Your task to perform on an android device: open app "Roku - Official Remote Control" (install if not already installed) Image 0: 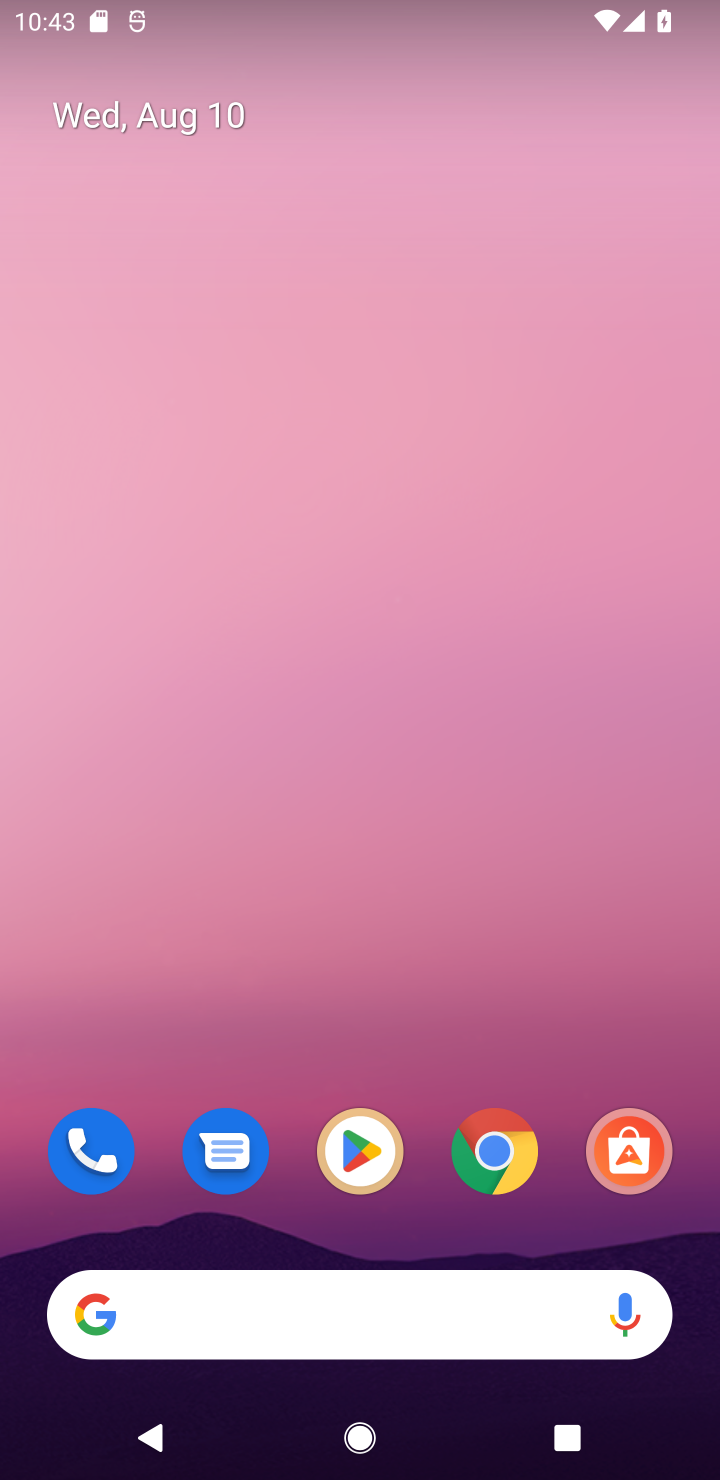
Step 0: drag from (410, 1222) to (416, 471)
Your task to perform on an android device: open app "Roku - Official Remote Control" (install if not already installed) Image 1: 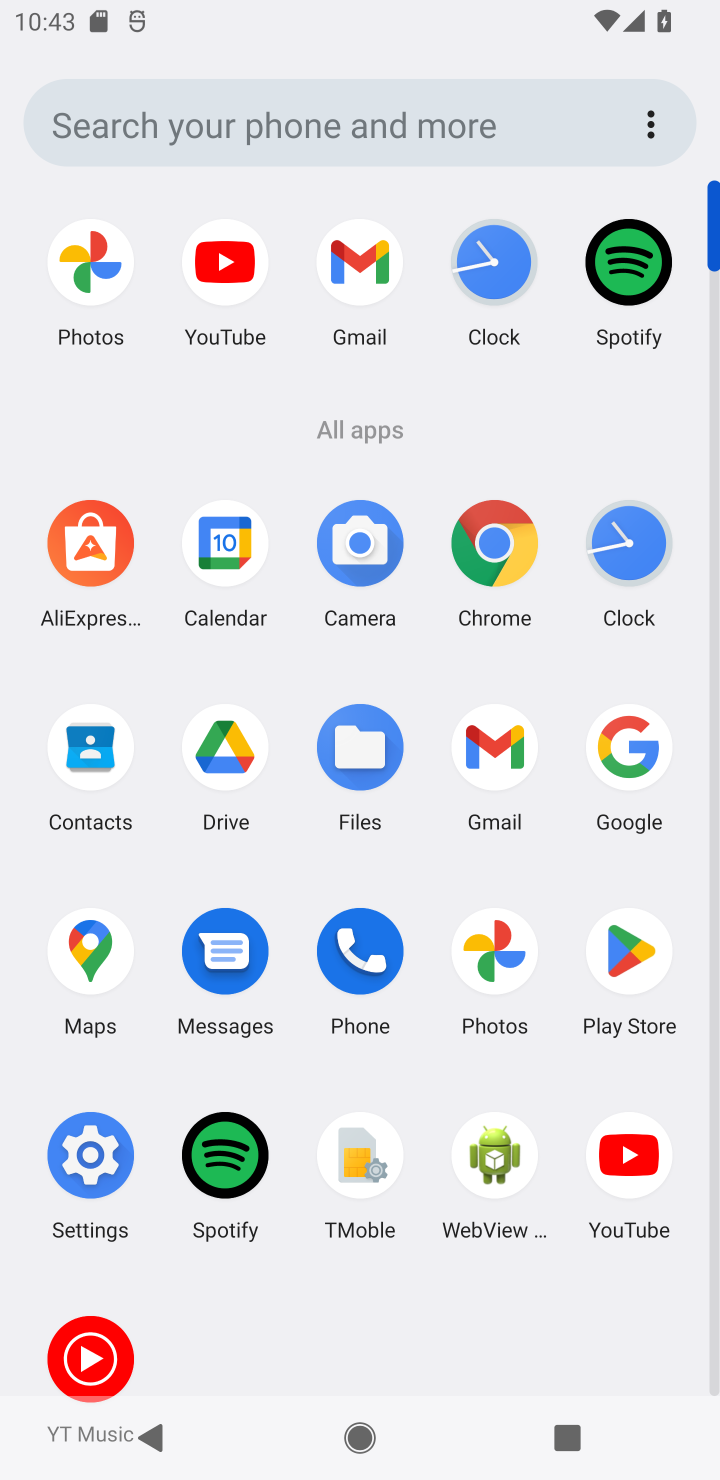
Step 1: click (628, 939)
Your task to perform on an android device: open app "Roku - Official Remote Control" (install if not already installed) Image 2: 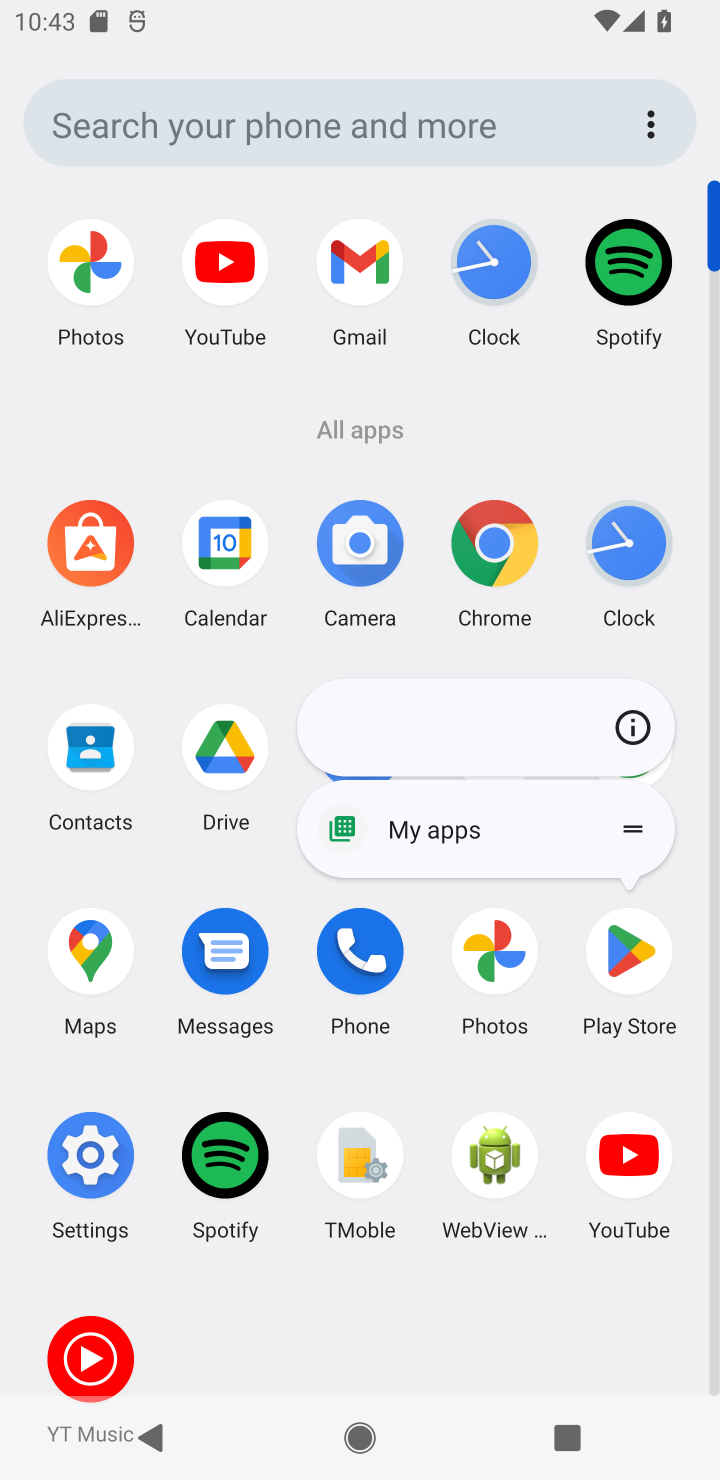
Step 2: click (622, 939)
Your task to perform on an android device: open app "Roku - Official Remote Control" (install if not already installed) Image 3: 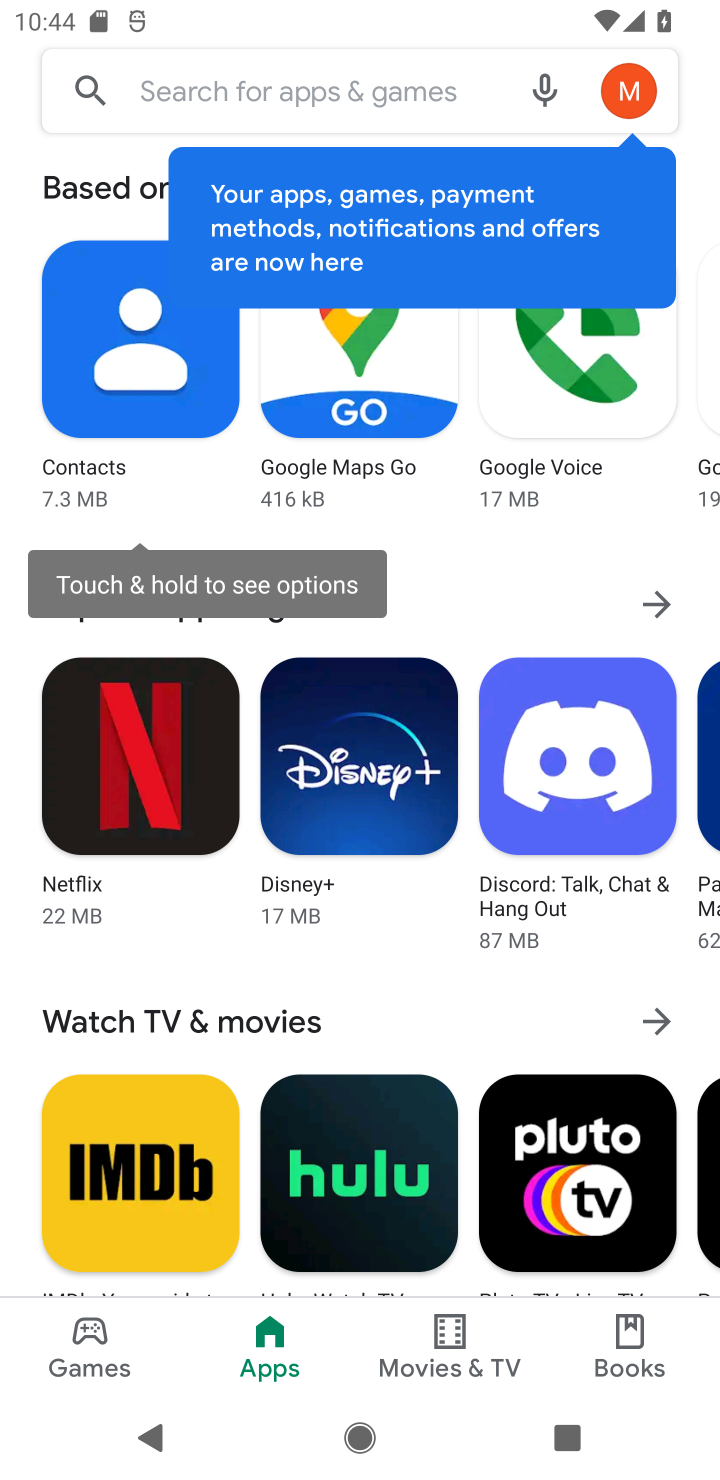
Step 3: click (166, 87)
Your task to perform on an android device: open app "Roku - Official Remote Control" (install if not already installed) Image 4: 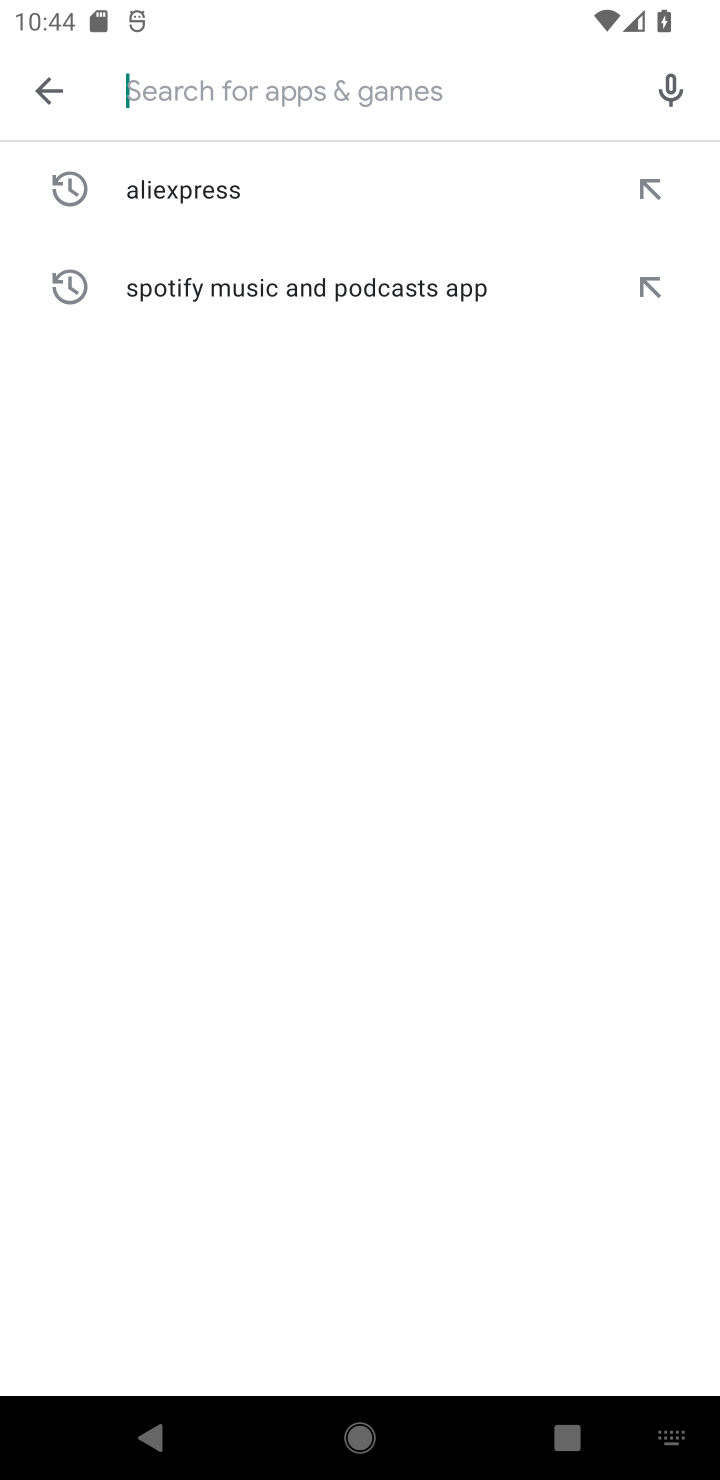
Step 4: type "Roku - Official Remote Control"
Your task to perform on an android device: open app "Roku - Official Remote Control" (install if not already installed) Image 5: 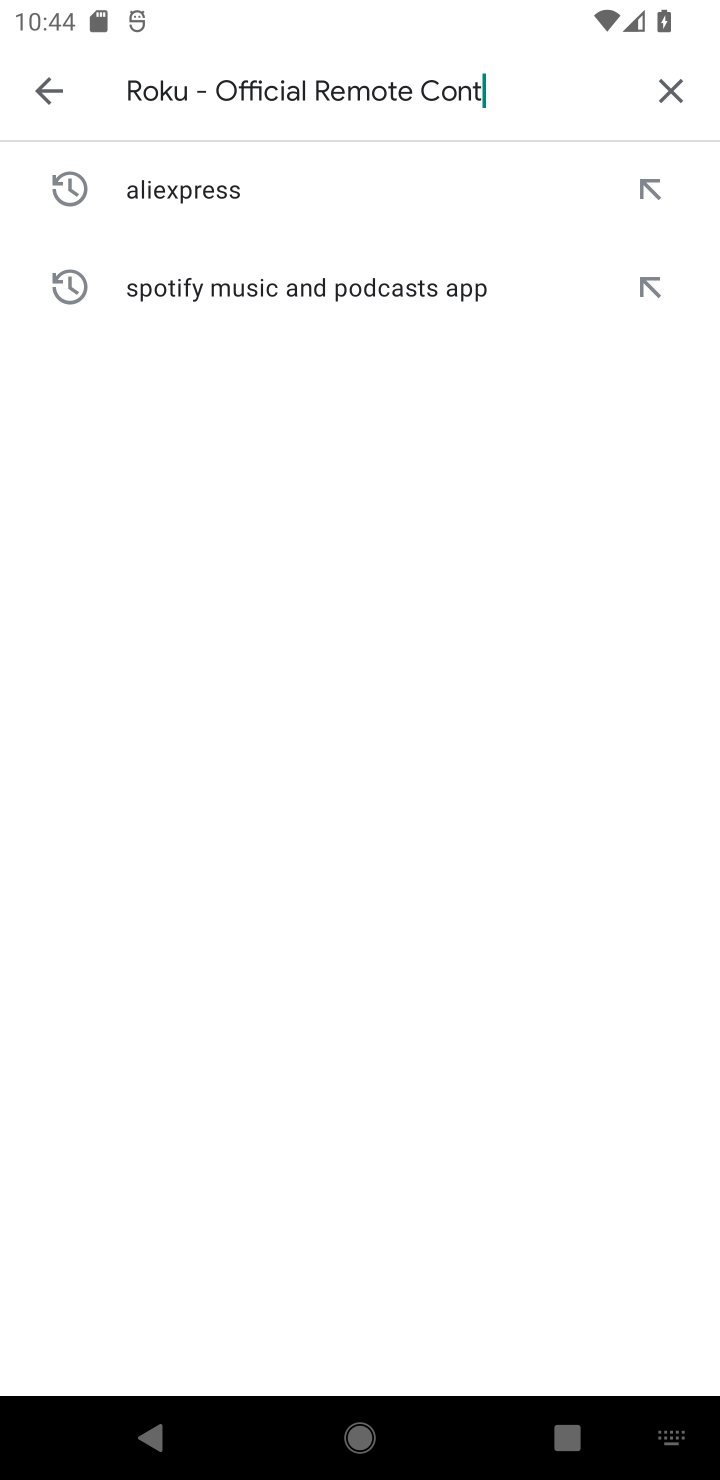
Step 5: type ""
Your task to perform on an android device: open app "Roku - Official Remote Control" (install if not already installed) Image 6: 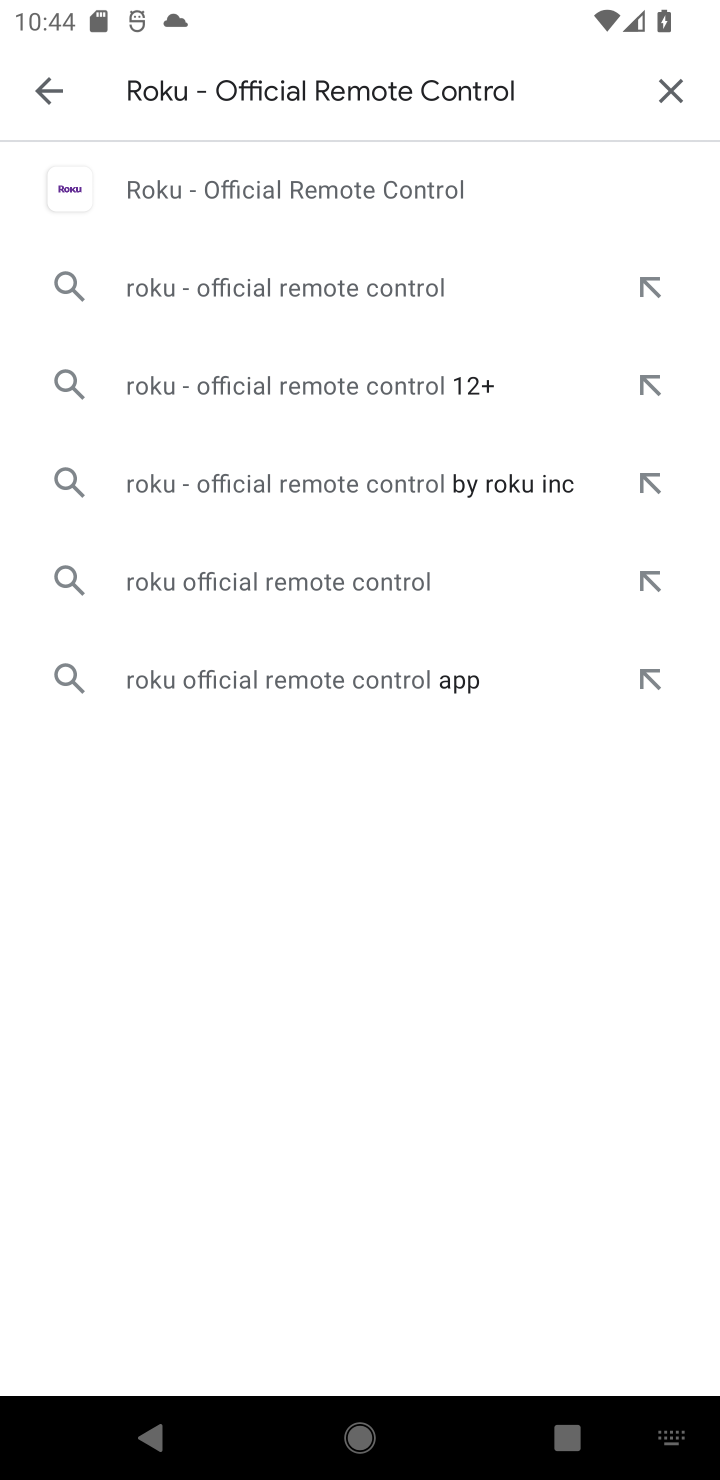
Step 6: click (330, 190)
Your task to perform on an android device: open app "Roku - Official Remote Control" (install if not already installed) Image 7: 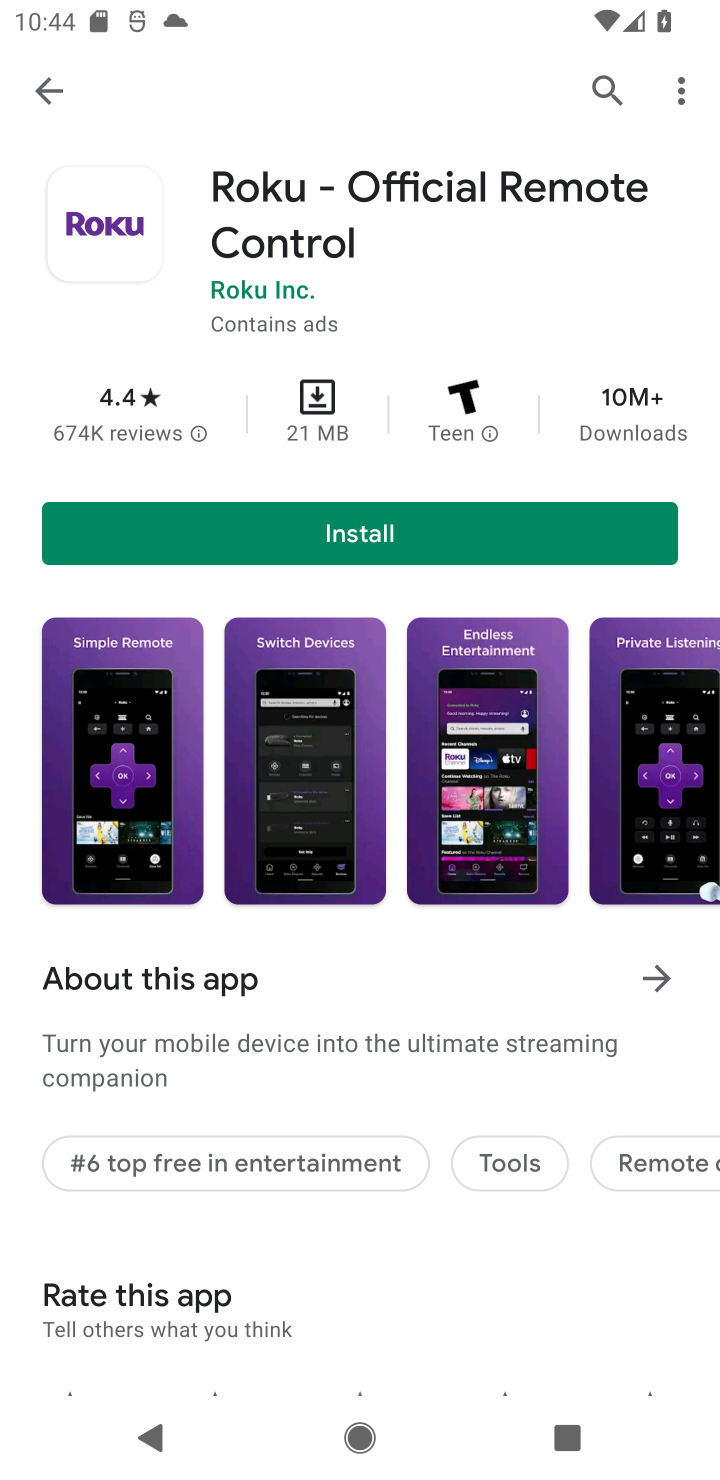
Step 7: click (353, 540)
Your task to perform on an android device: open app "Roku - Official Remote Control" (install if not already installed) Image 8: 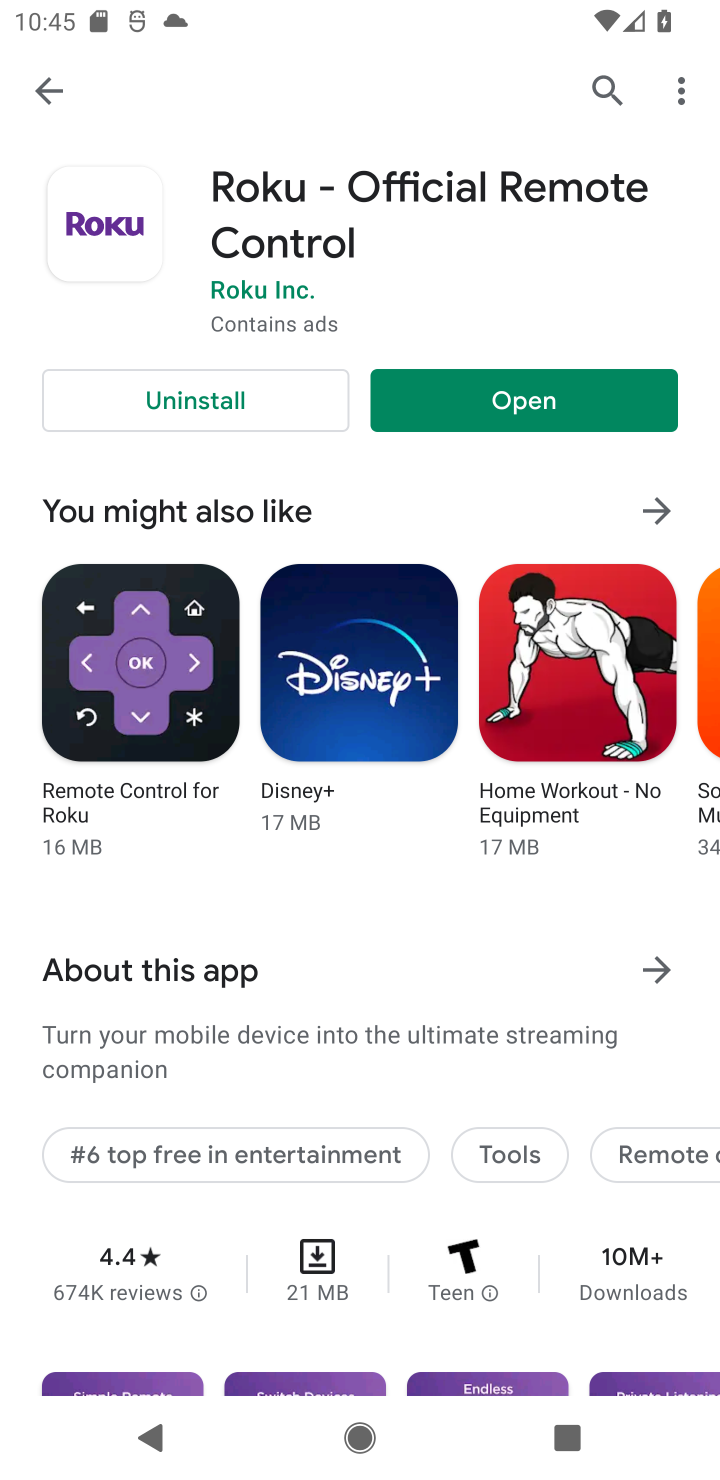
Step 8: click (475, 403)
Your task to perform on an android device: open app "Roku - Official Remote Control" (install if not already installed) Image 9: 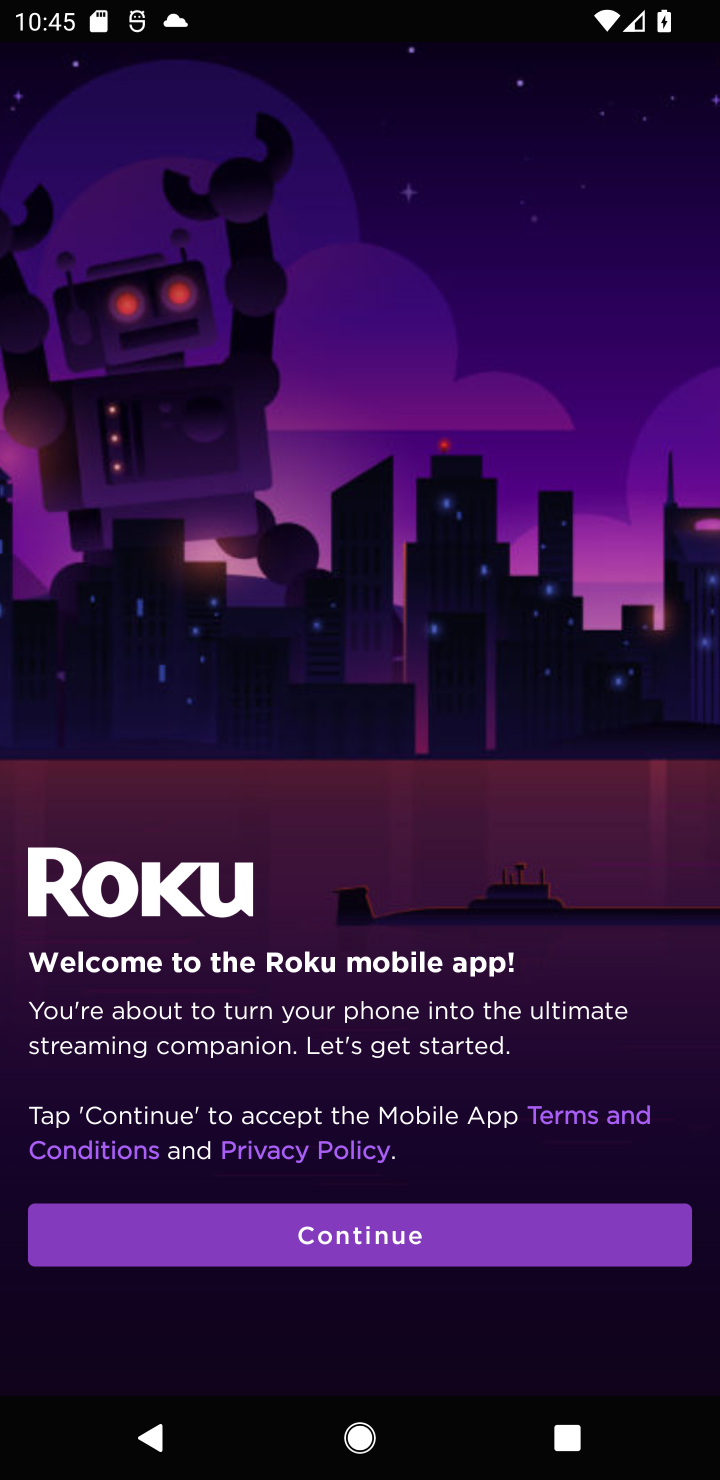
Step 9: click (357, 1238)
Your task to perform on an android device: open app "Roku - Official Remote Control" (install if not already installed) Image 10: 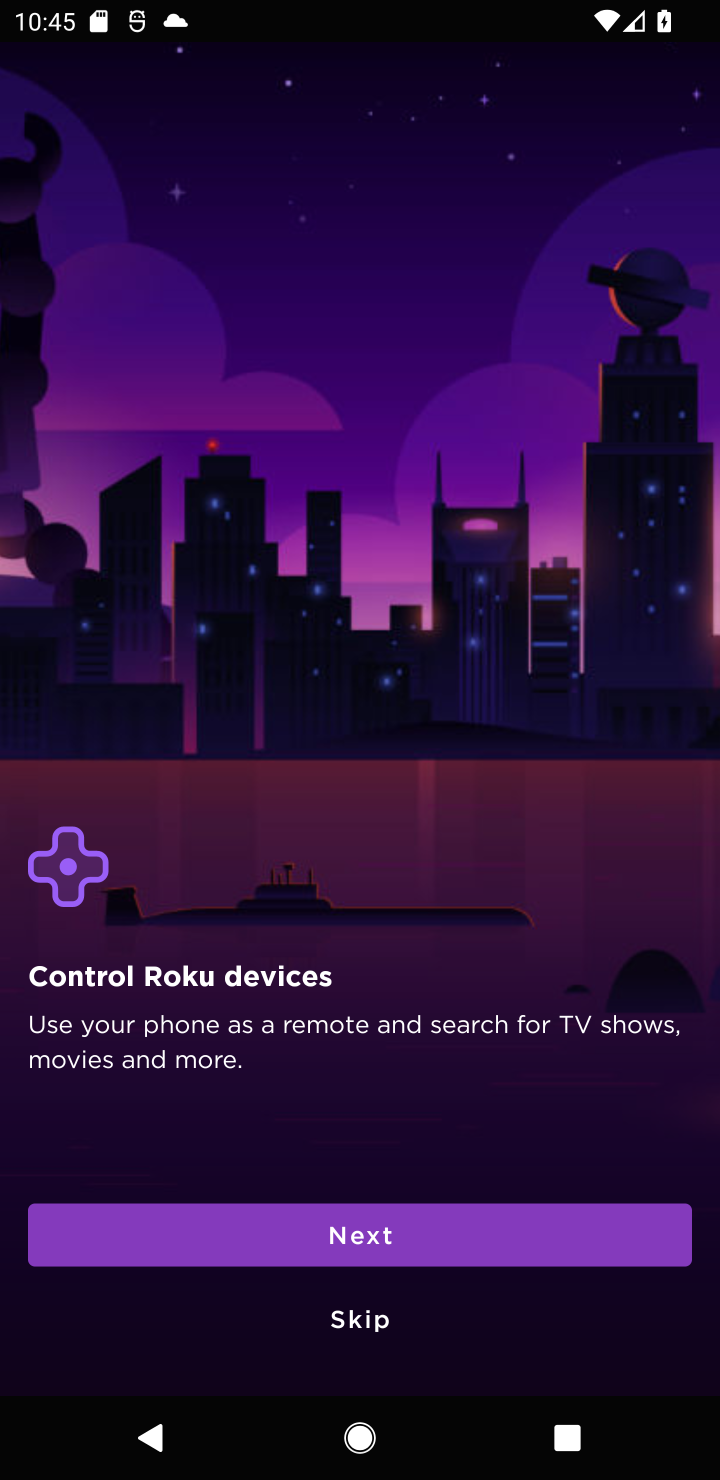
Step 10: click (373, 1313)
Your task to perform on an android device: open app "Roku - Official Remote Control" (install if not already installed) Image 11: 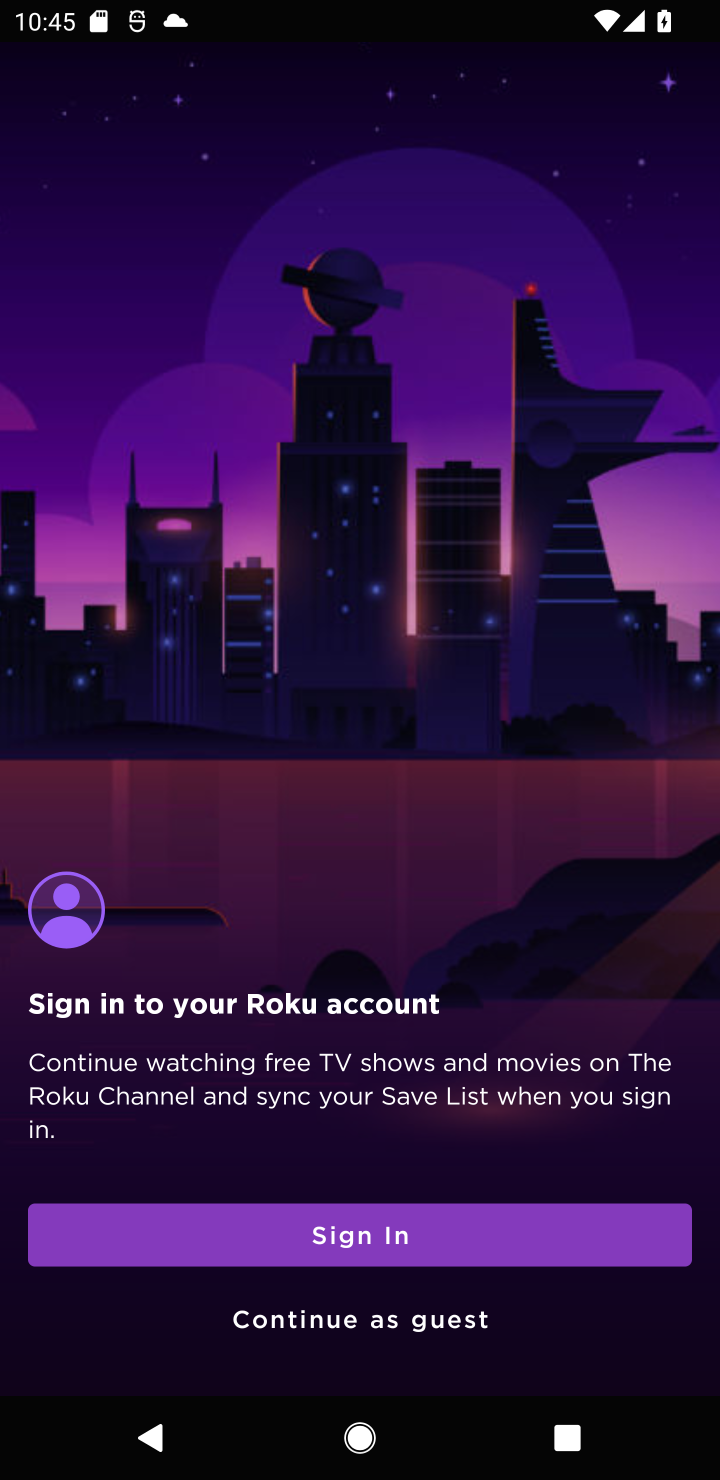
Step 11: click (367, 1325)
Your task to perform on an android device: open app "Roku - Official Remote Control" (install if not already installed) Image 12: 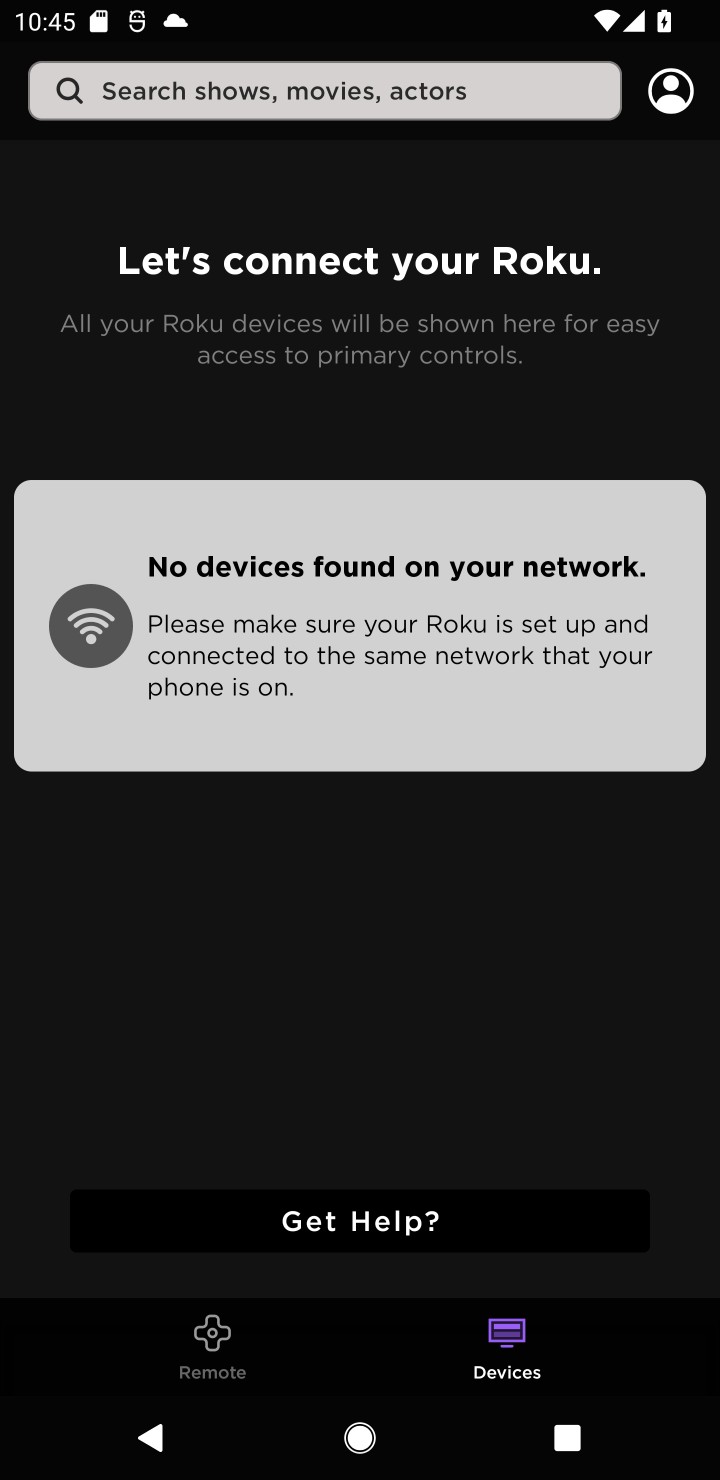
Step 12: task complete